Your task to perform on an android device: Search for jbl charge 4 on walmart, select the first entry, and add it to the cart. Image 0: 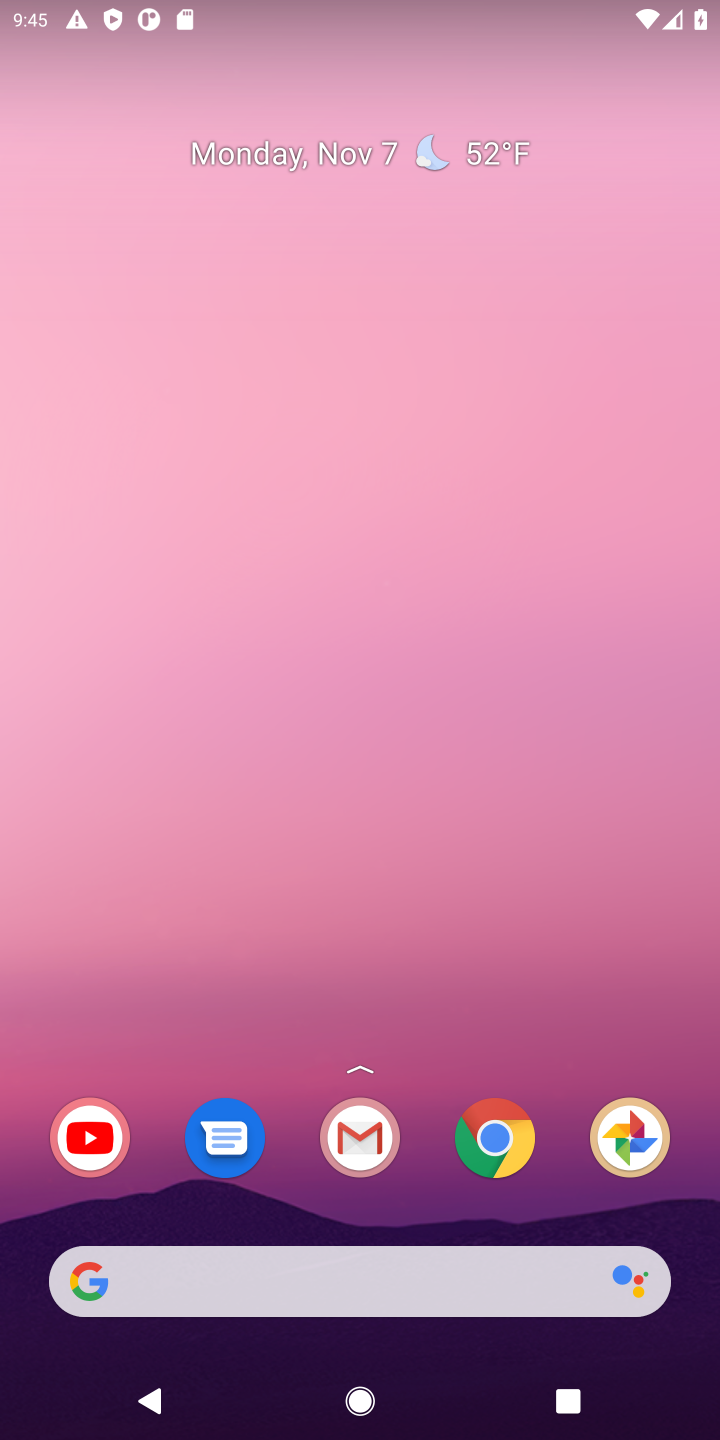
Step 0: click (504, 1128)
Your task to perform on an android device: Search for jbl charge 4 on walmart, select the first entry, and add it to the cart. Image 1: 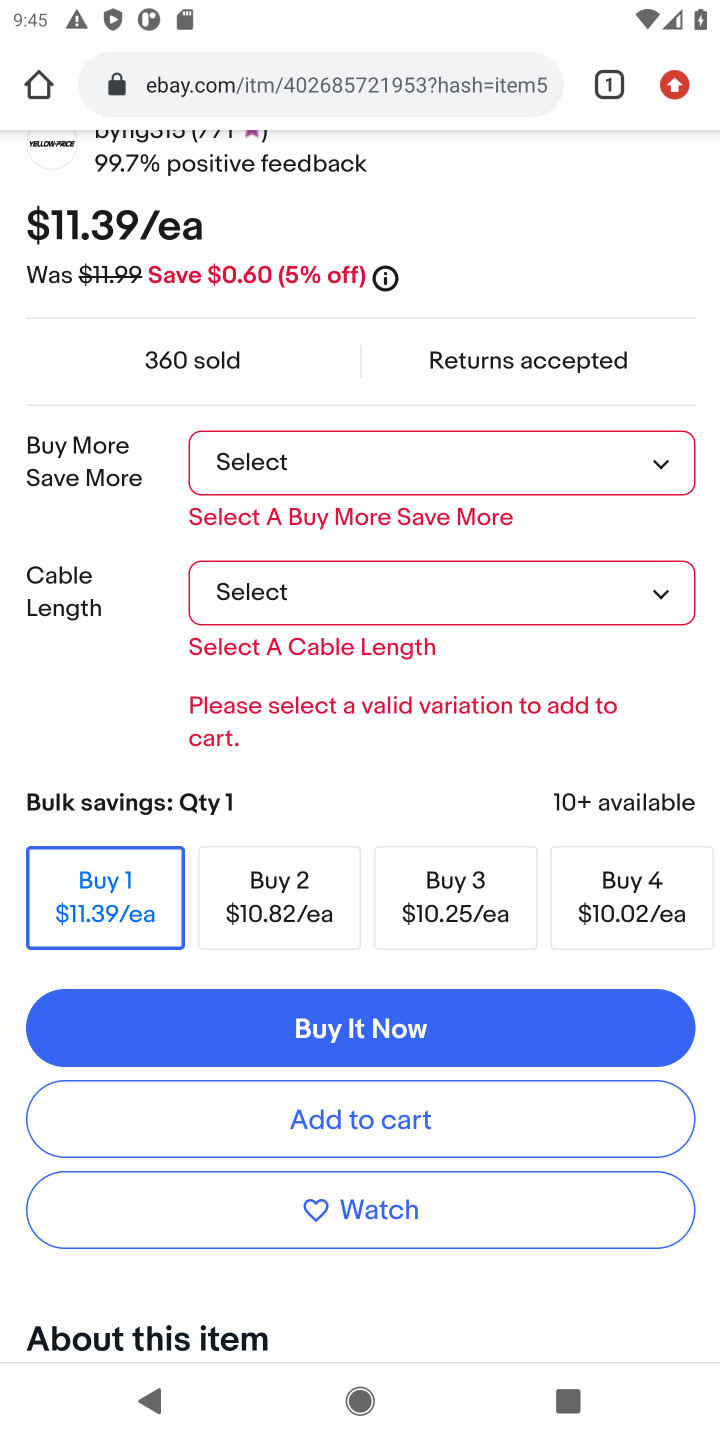
Step 1: click (209, 84)
Your task to perform on an android device: Search for jbl charge 4 on walmart, select the first entry, and add it to the cart. Image 2: 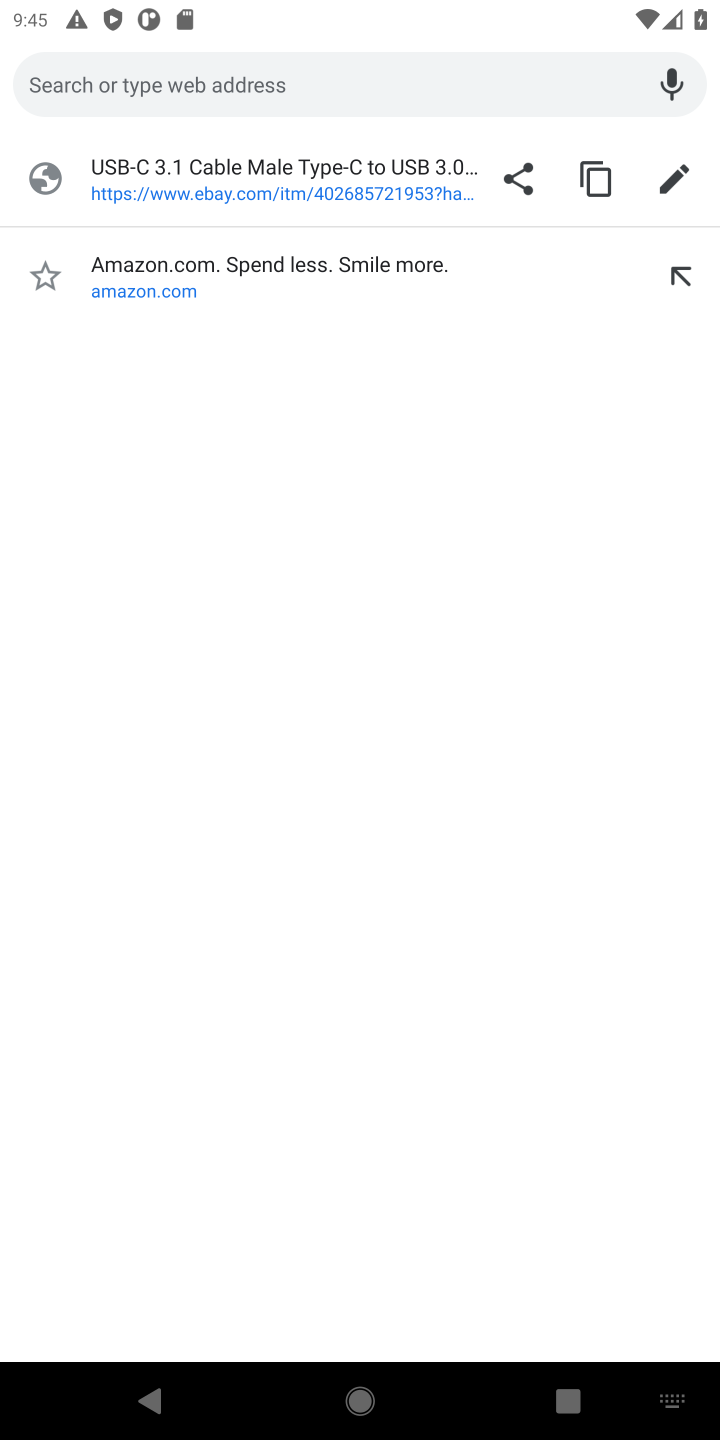
Step 2: type "walmart"
Your task to perform on an android device: Search for jbl charge 4 on walmart, select the first entry, and add it to the cart. Image 3: 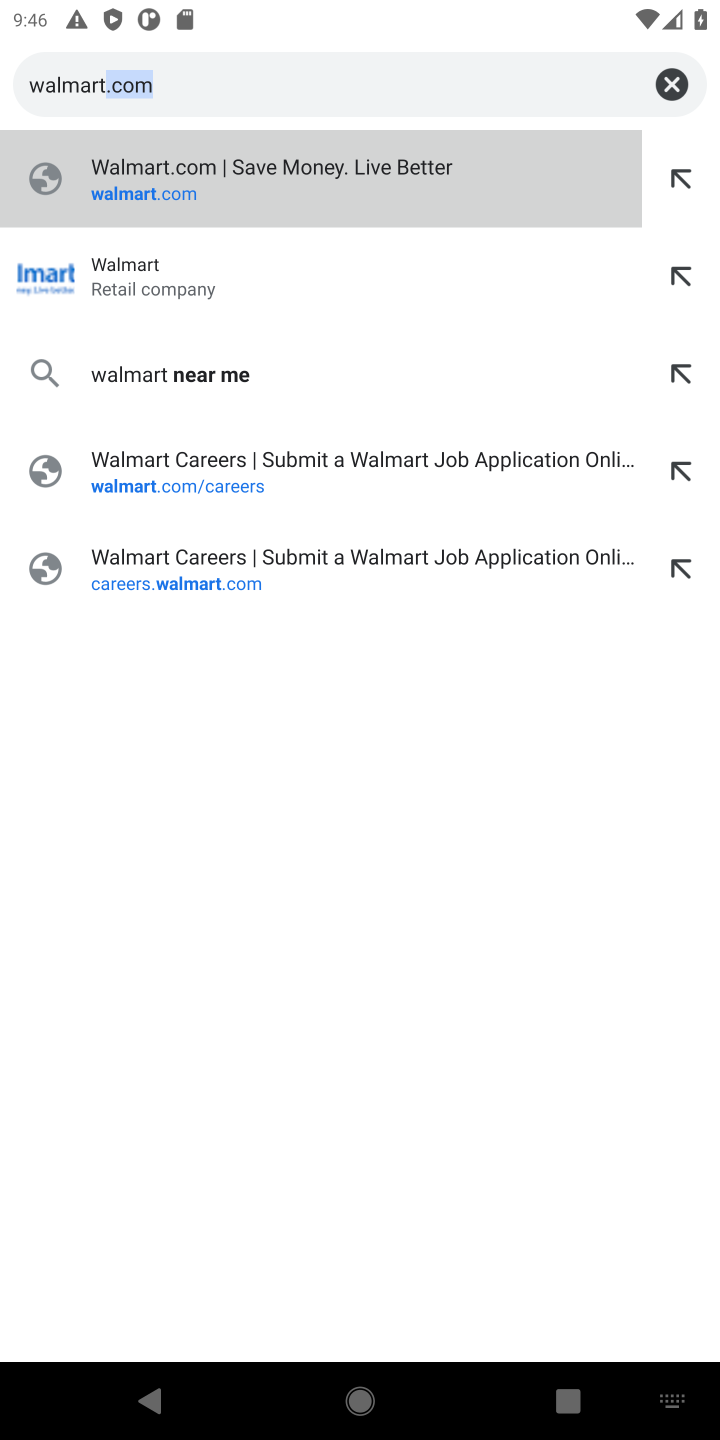
Step 3: type ""
Your task to perform on an android device: Search for jbl charge 4 on walmart, select the first entry, and add it to the cart. Image 4: 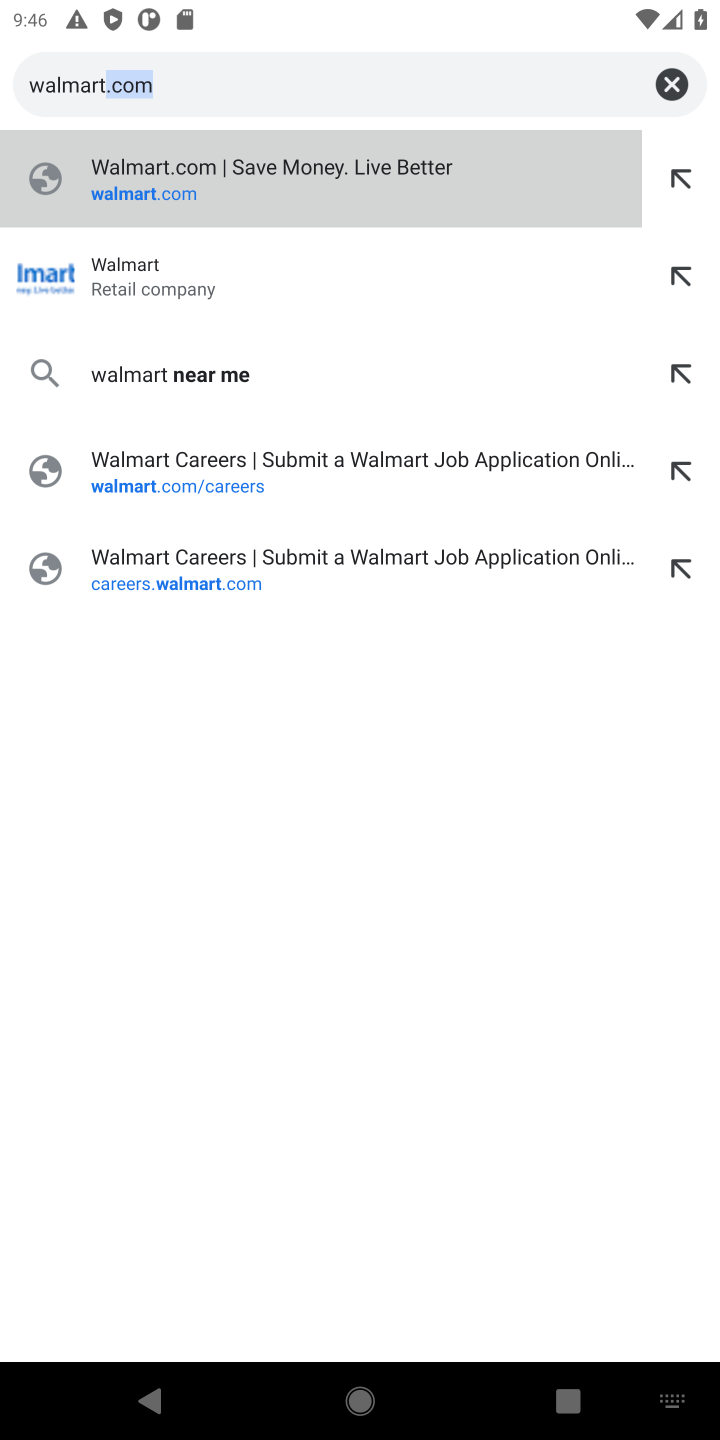
Step 4: click (113, 288)
Your task to perform on an android device: Search for jbl charge 4 on walmart, select the first entry, and add it to the cart. Image 5: 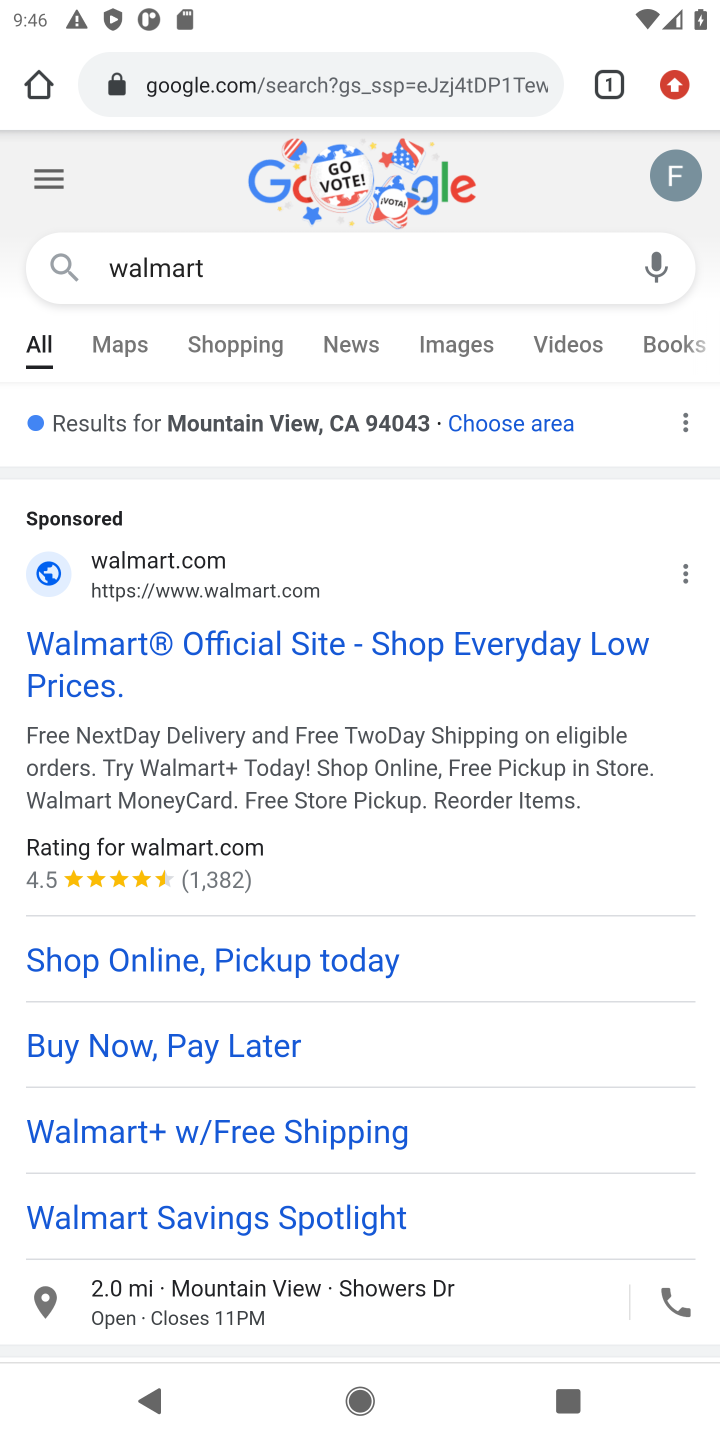
Step 5: drag from (316, 1047) to (326, 494)
Your task to perform on an android device: Search for jbl charge 4 on walmart, select the first entry, and add it to the cart. Image 6: 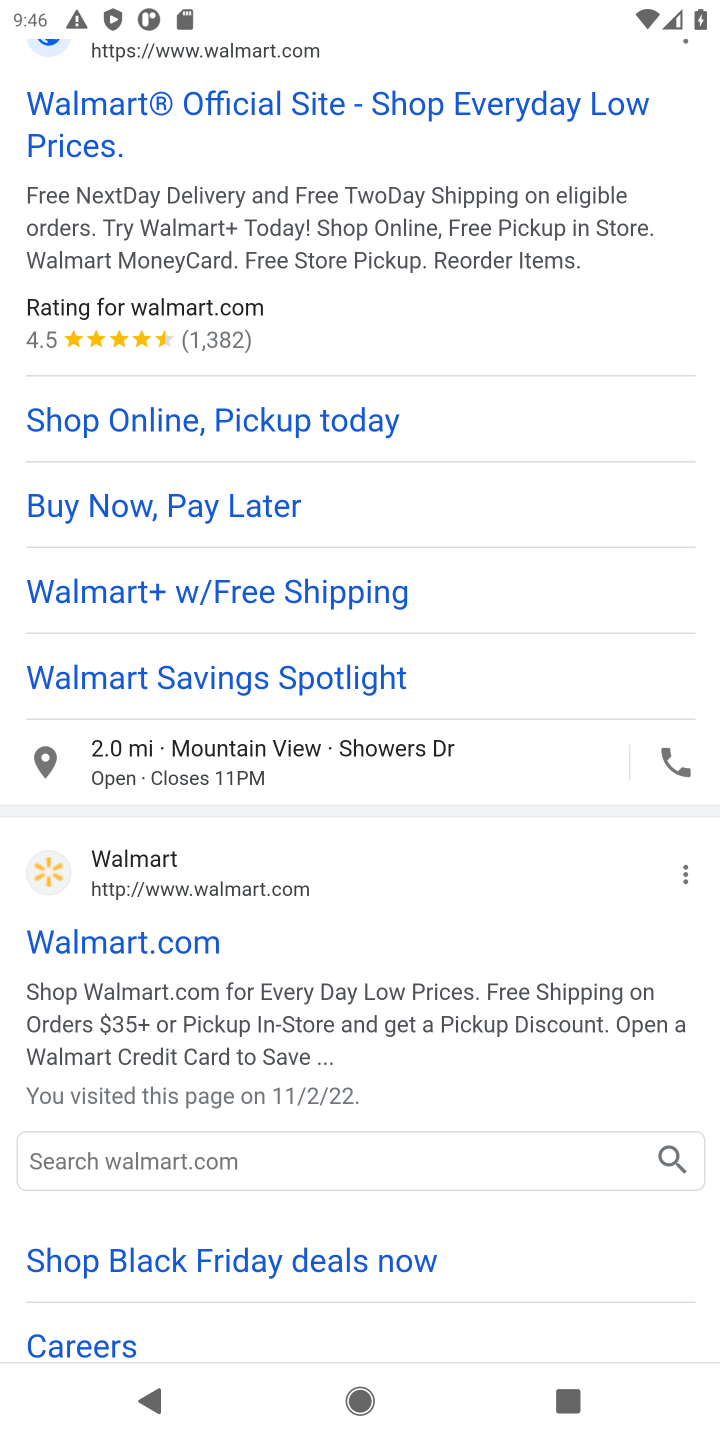
Step 6: drag from (327, 1143) to (336, 675)
Your task to perform on an android device: Search for jbl charge 4 on walmart, select the first entry, and add it to the cart. Image 7: 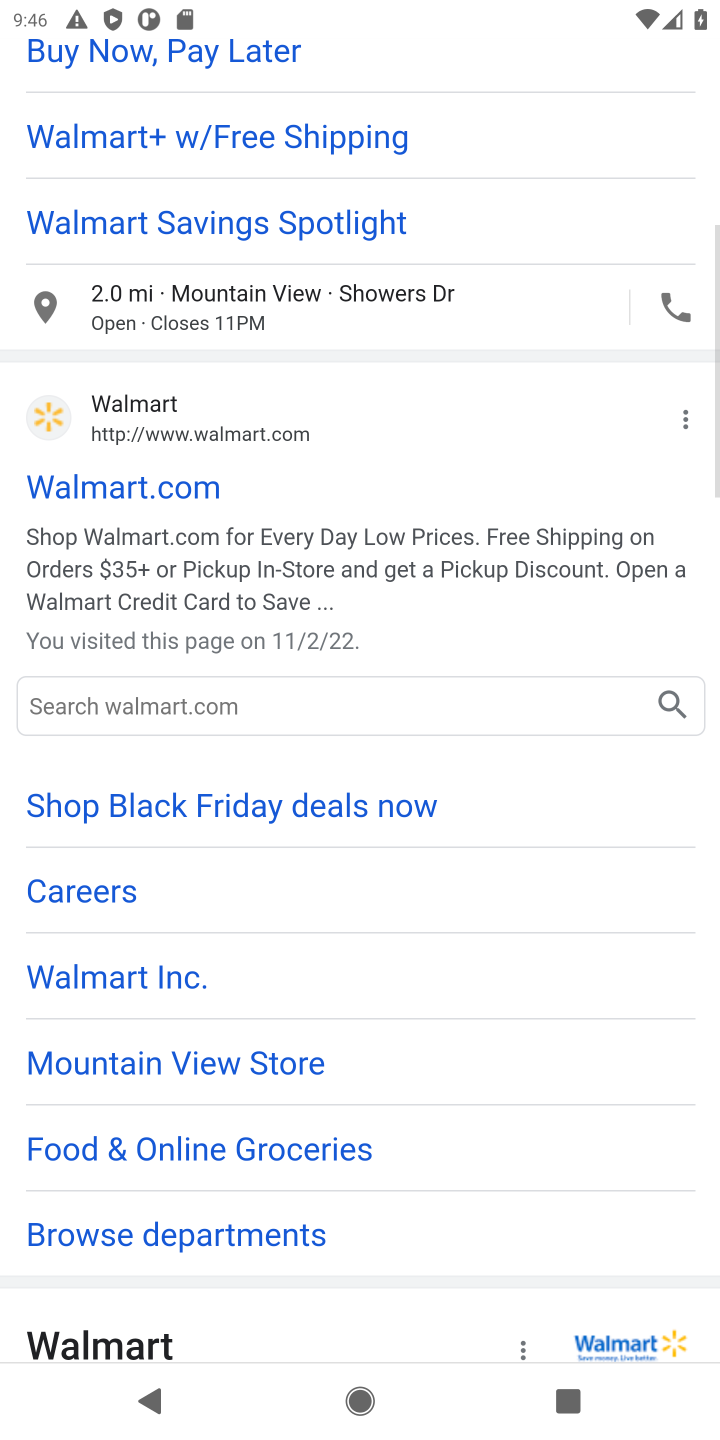
Step 7: click (123, 883)
Your task to perform on an android device: Search for jbl charge 4 on walmart, select the first entry, and add it to the cart. Image 8: 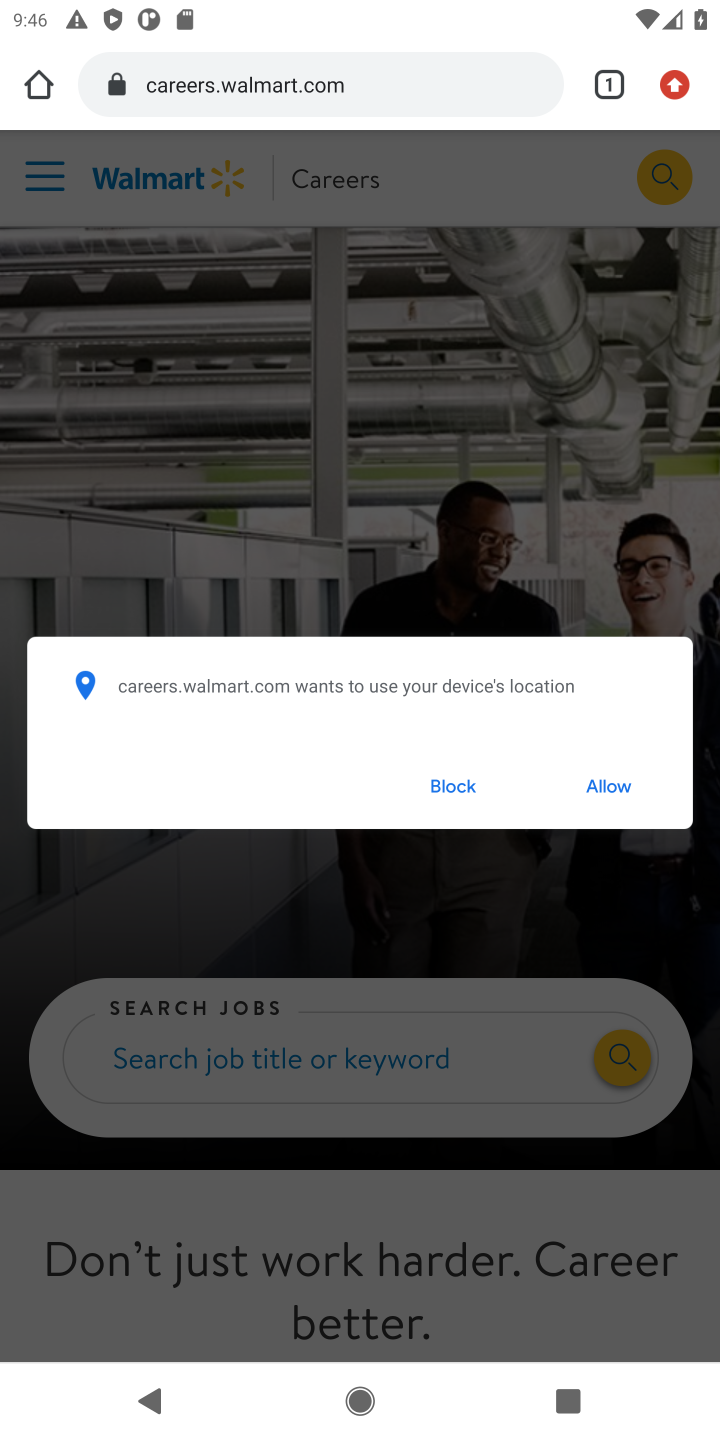
Step 8: click (672, 170)
Your task to perform on an android device: Search for jbl charge 4 on walmart, select the first entry, and add it to the cart. Image 9: 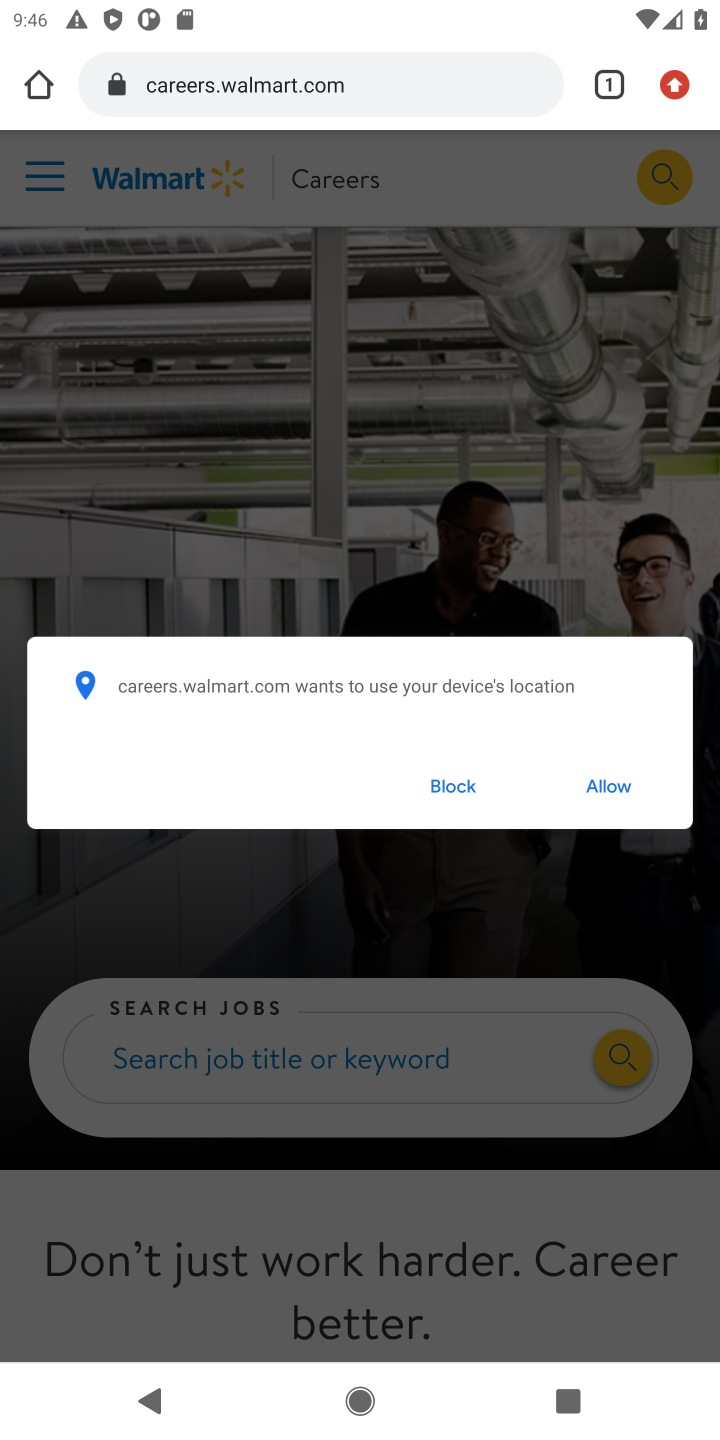
Step 9: click (605, 785)
Your task to perform on an android device: Search for jbl charge 4 on walmart, select the first entry, and add it to the cart. Image 10: 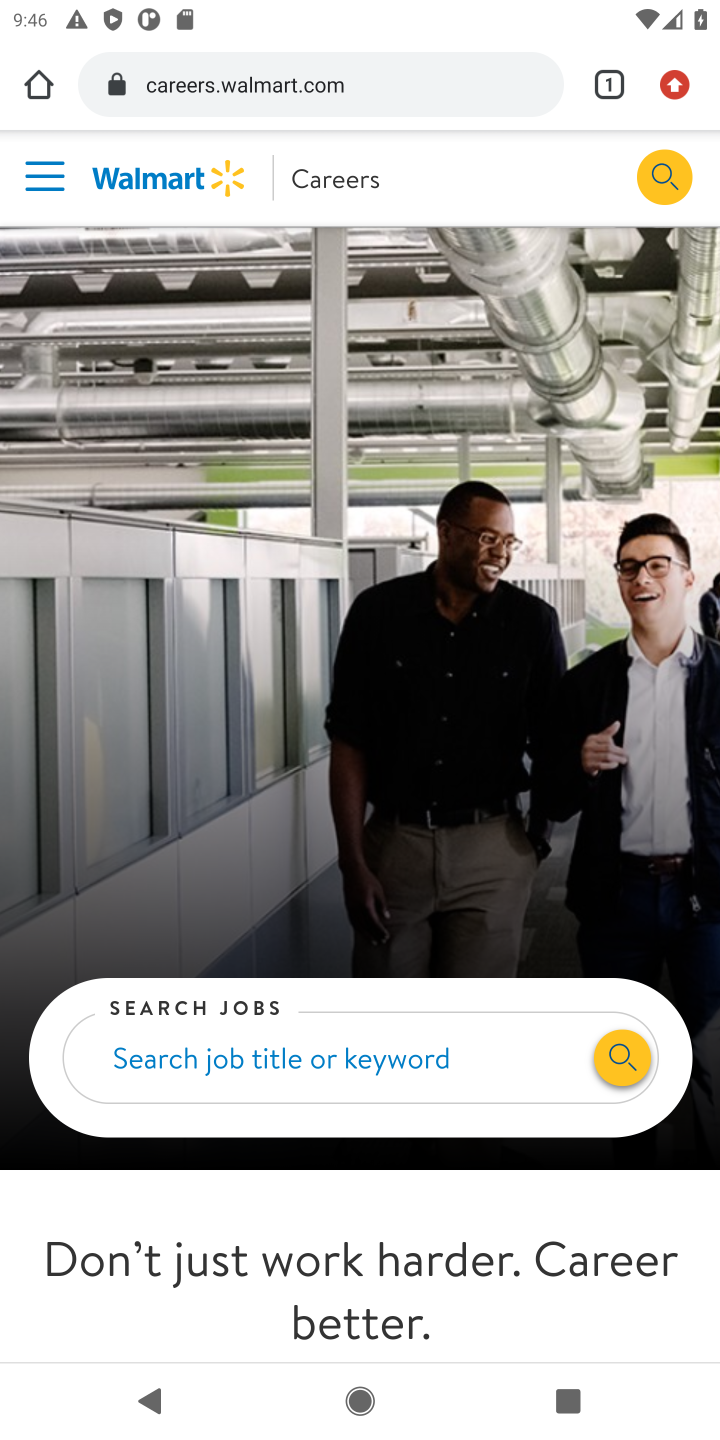
Step 10: click (653, 187)
Your task to perform on an android device: Search for jbl charge 4 on walmart, select the first entry, and add it to the cart. Image 11: 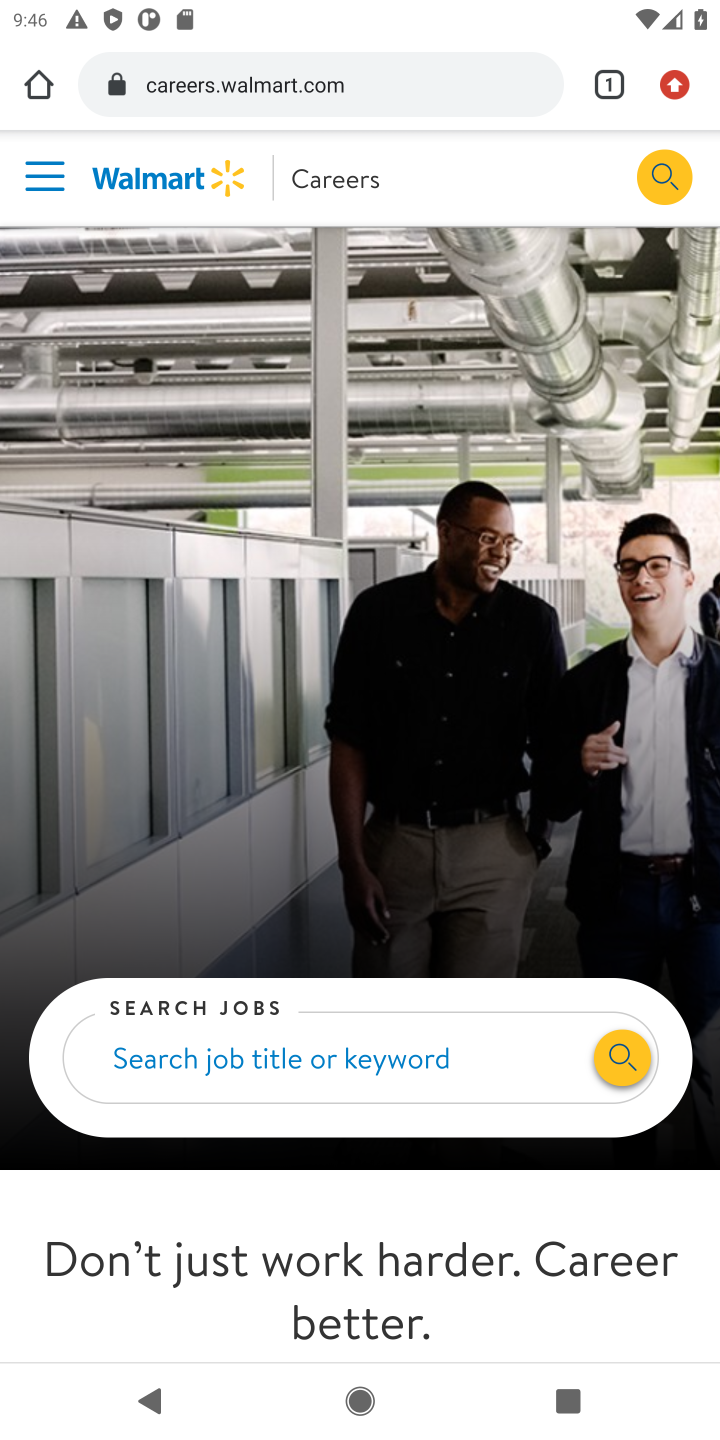
Step 11: click (655, 190)
Your task to perform on an android device: Search for jbl charge 4 on walmart, select the first entry, and add it to the cart. Image 12: 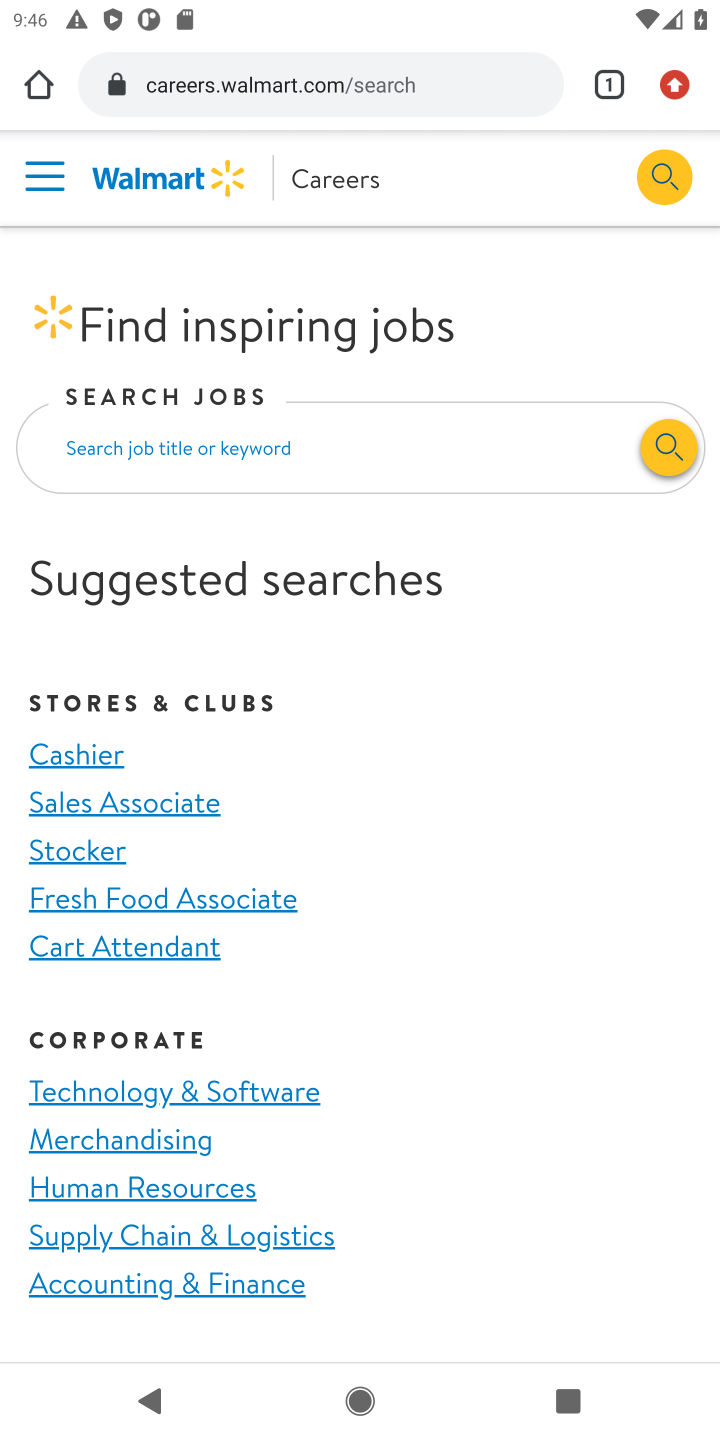
Step 12: click (225, 444)
Your task to perform on an android device: Search for jbl charge 4 on walmart, select the first entry, and add it to the cart. Image 13: 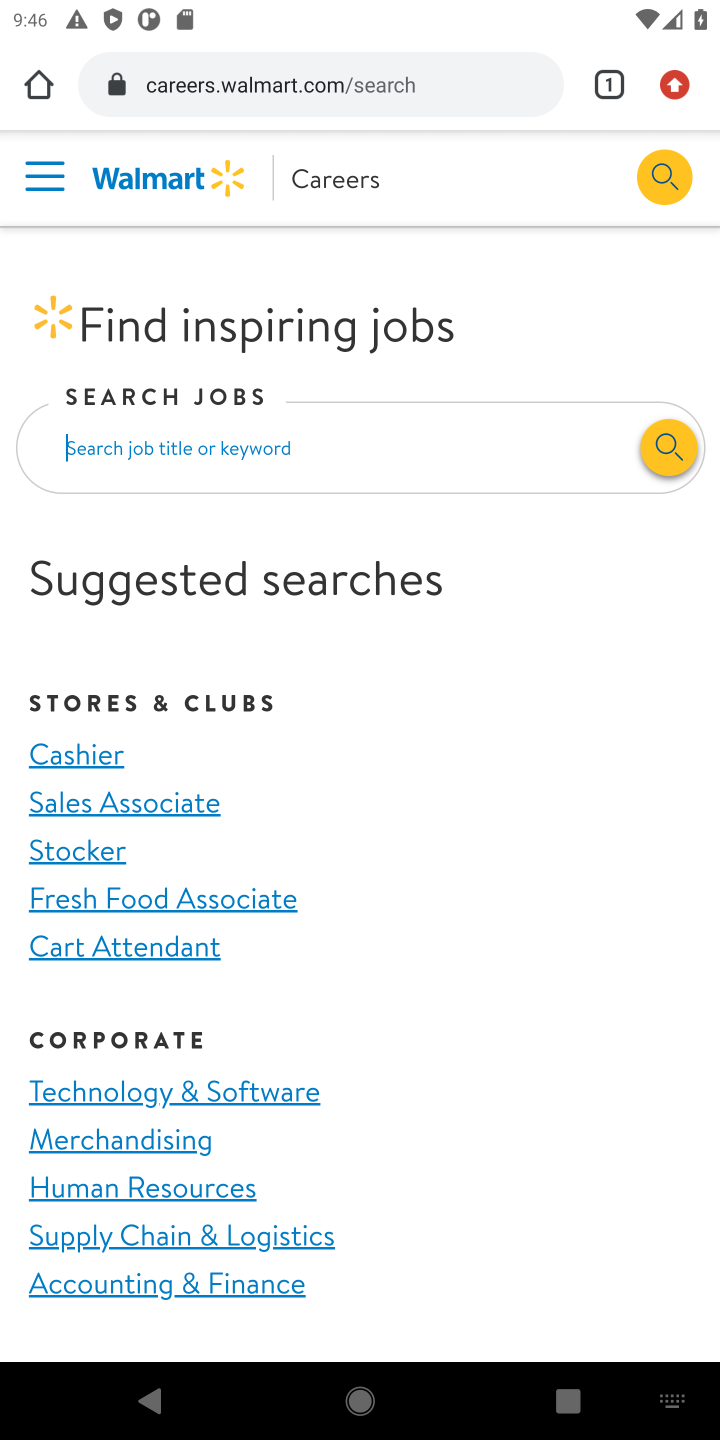
Step 13: press back button
Your task to perform on an android device: Search for jbl charge 4 on walmart, select the first entry, and add it to the cart. Image 14: 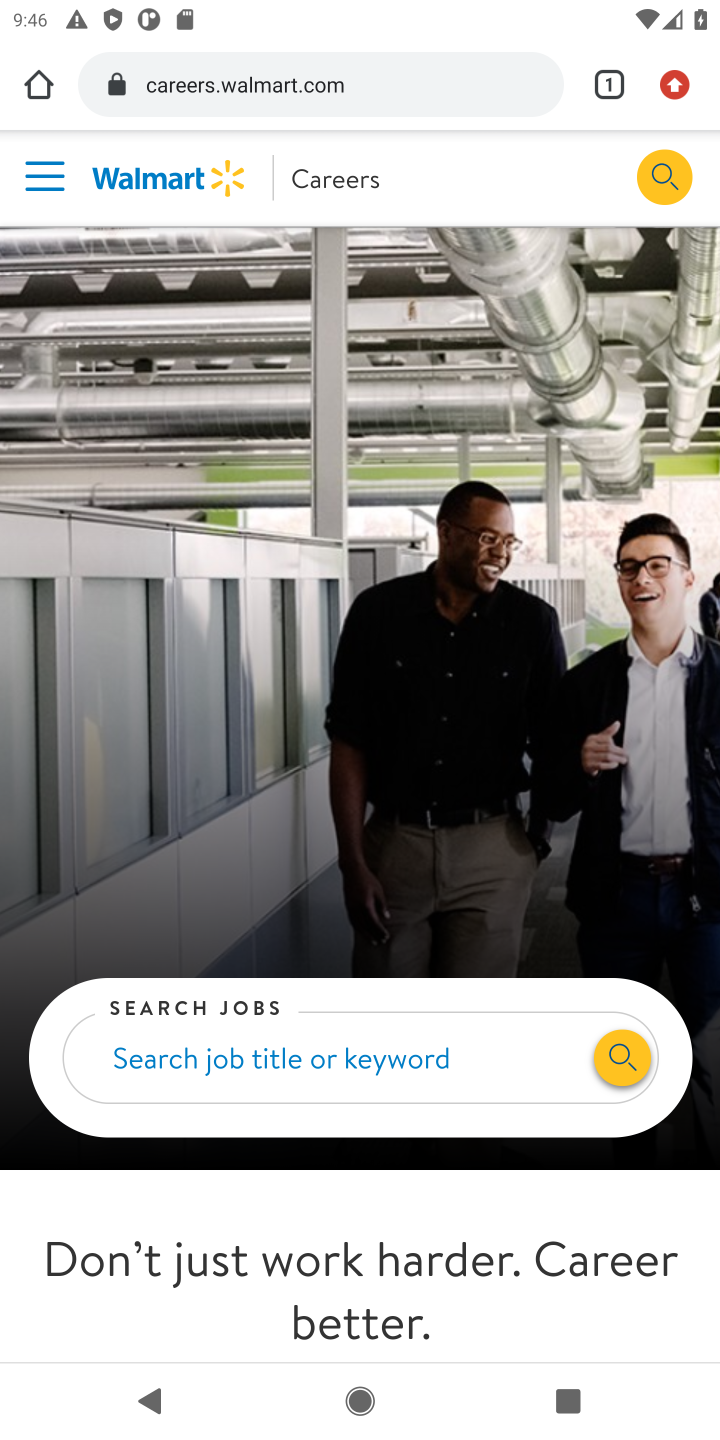
Step 14: click (268, 78)
Your task to perform on an android device: Search for jbl charge 4 on walmart, select the first entry, and add it to the cart. Image 15: 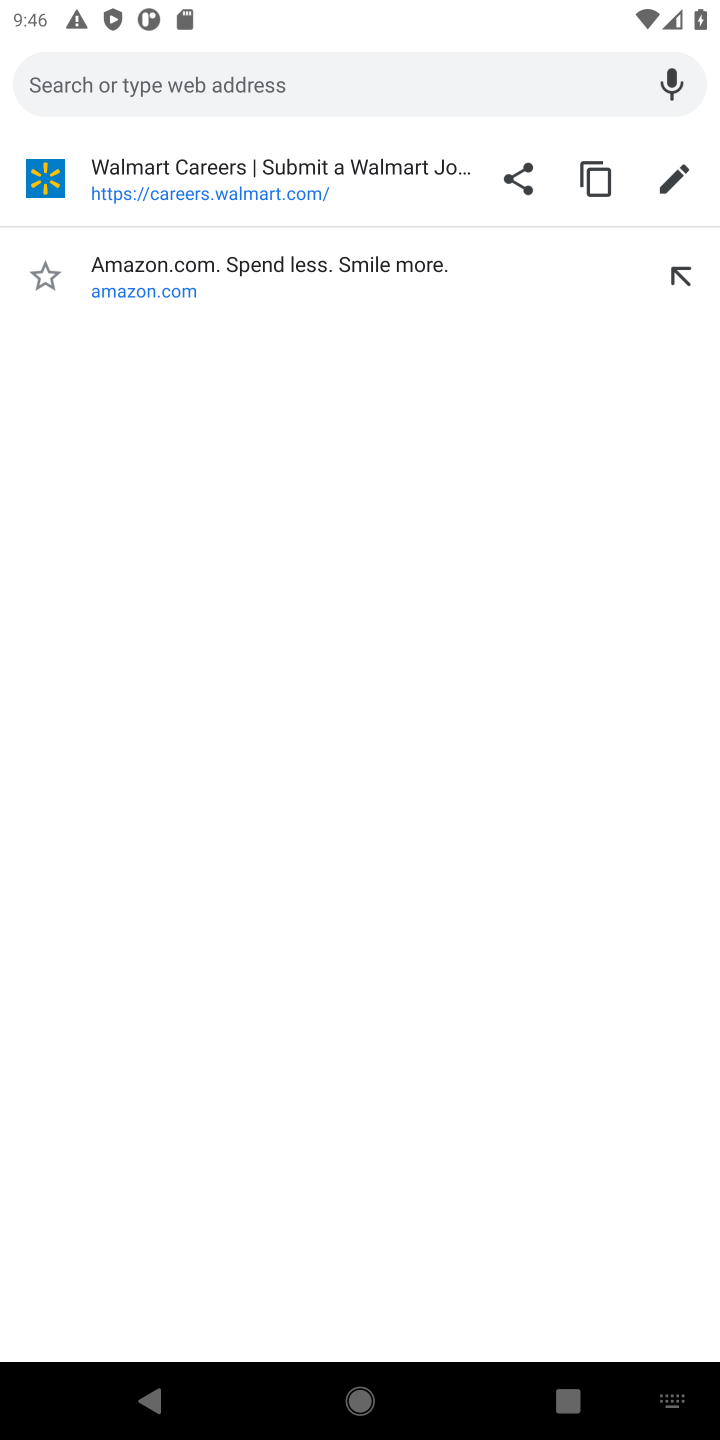
Step 15: type "walart"
Your task to perform on an android device: Search for jbl charge 4 on walmart, select the first entry, and add it to the cart. Image 16: 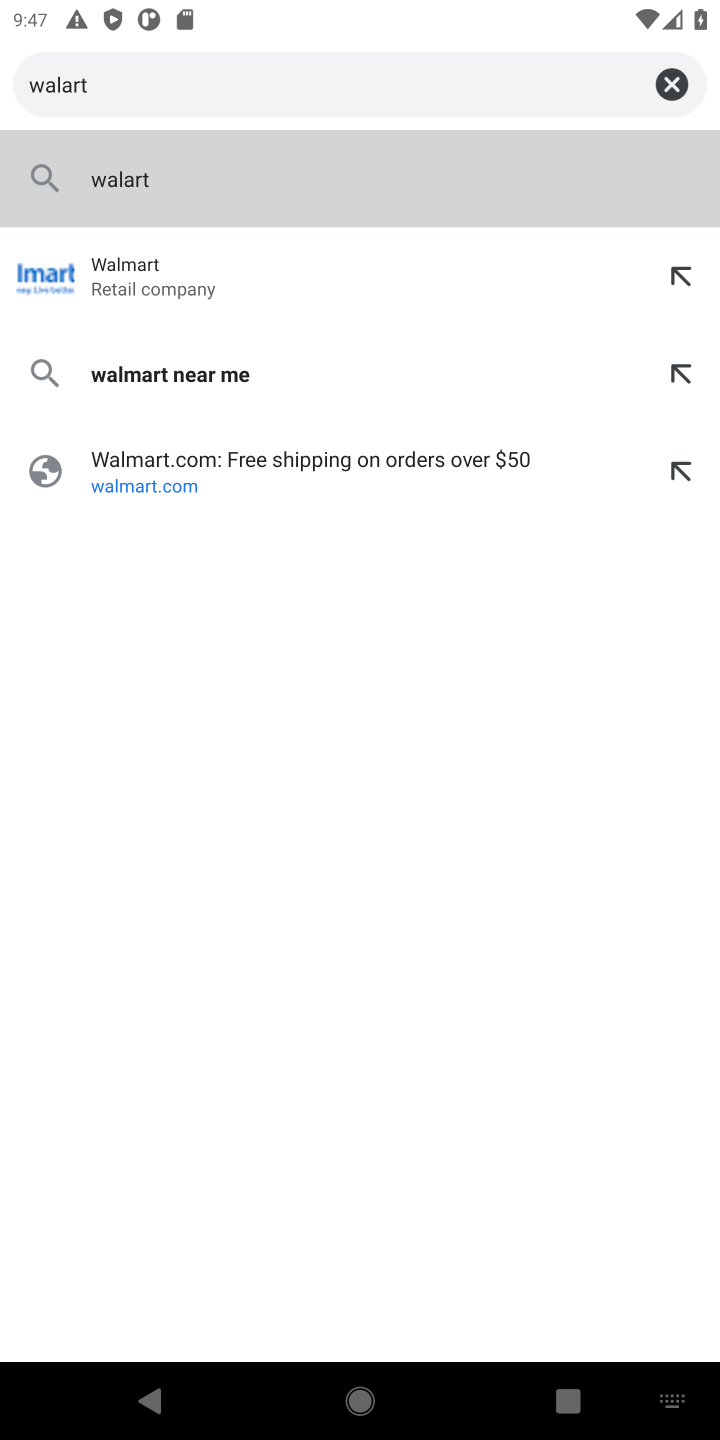
Step 16: click (116, 286)
Your task to perform on an android device: Search for jbl charge 4 on walmart, select the first entry, and add it to the cart. Image 17: 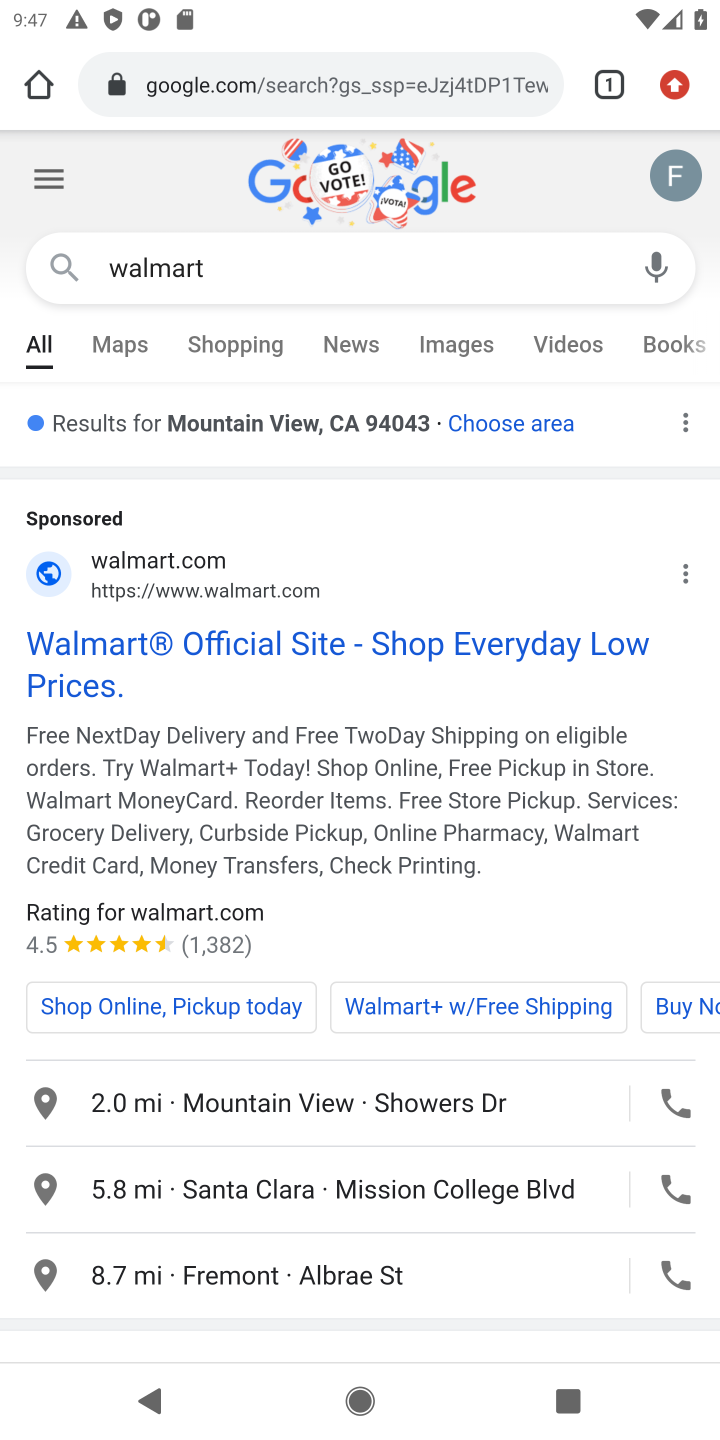
Step 17: drag from (180, 790) to (172, 293)
Your task to perform on an android device: Search for jbl charge 4 on walmart, select the first entry, and add it to the cart. Image 18: 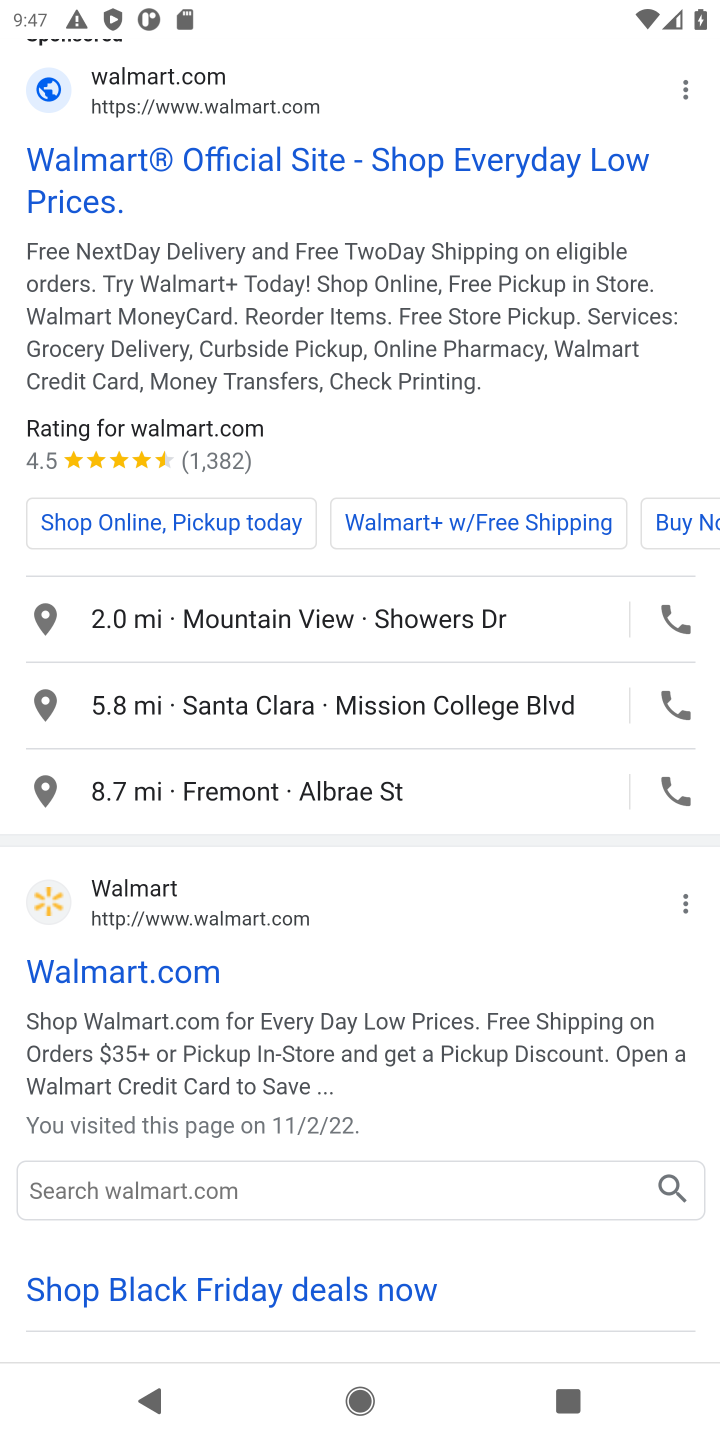
Step 18: click (122, 967)
Your task to perform on an android device: Search for jbl charge 4 on walmart, select the first entry, and add it to the cart. Image 19: 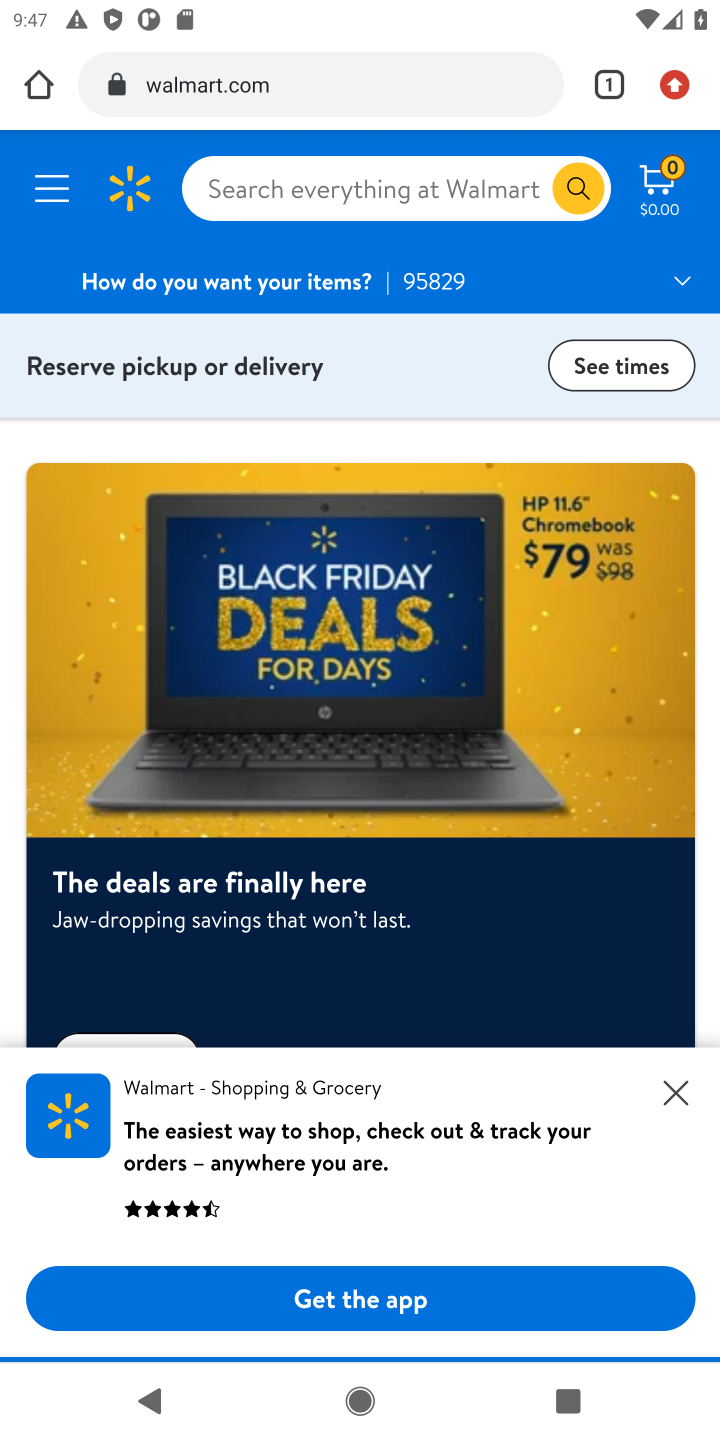
Step 19: click (358, 183)
Your task to perform on an android device: Search for jbl charge 4 on walmart, select the first entry, and add it to the cart. Image 20: 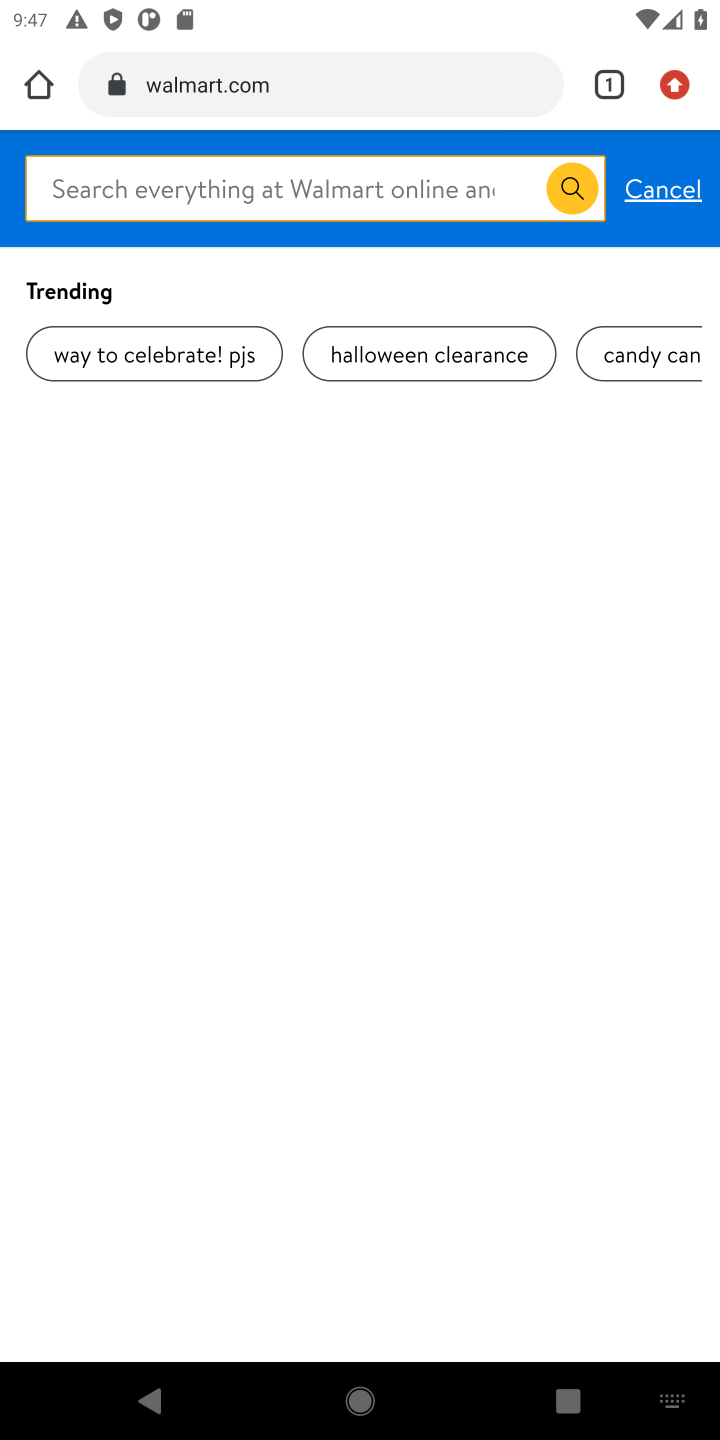
Step 20: type "jbl charge 4 "
Your task to perform on an android device: Search for jbl charge 4 on walmart, select the first entry, and add it to the cart. Image 21: 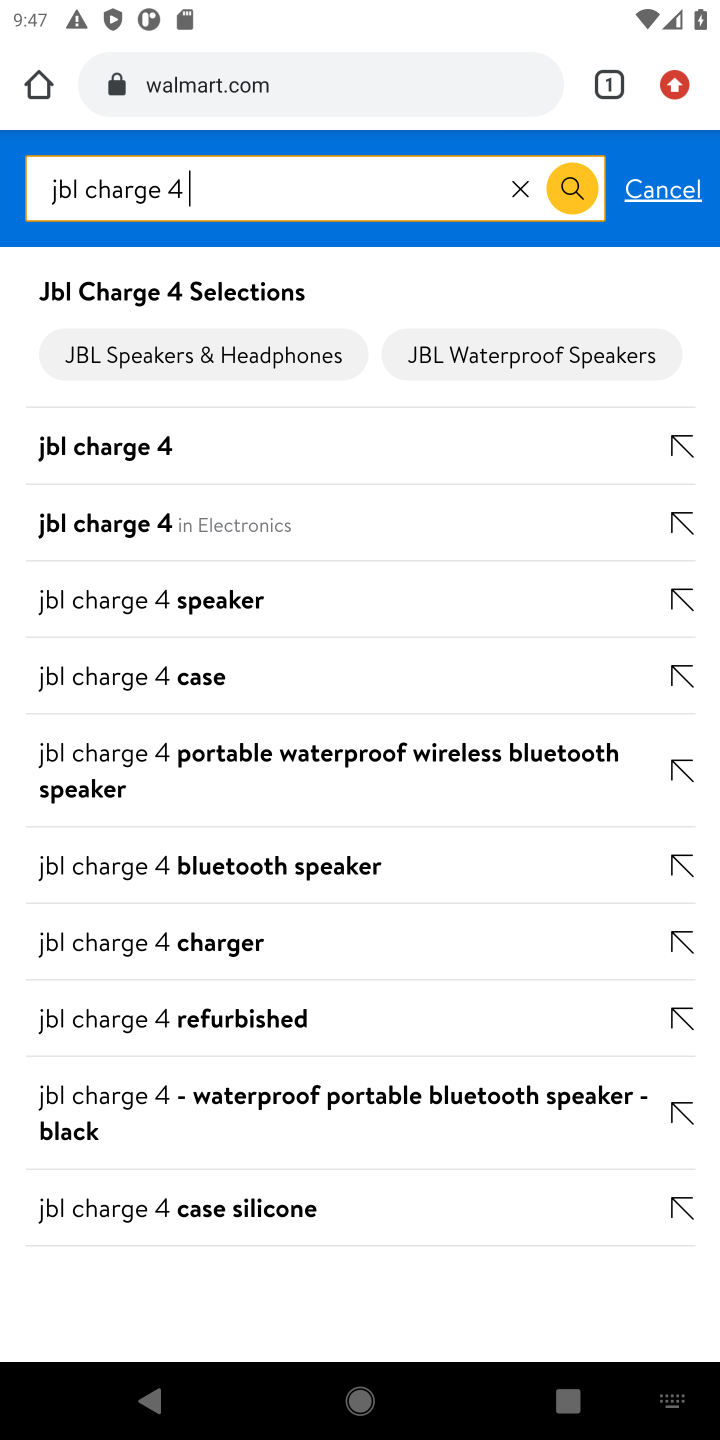
Step 21: click (125, 460)
Your task to perform on an android device: Search for jbl charge 4 on walmart, select the first entry, and add it to the cart. Image 22: 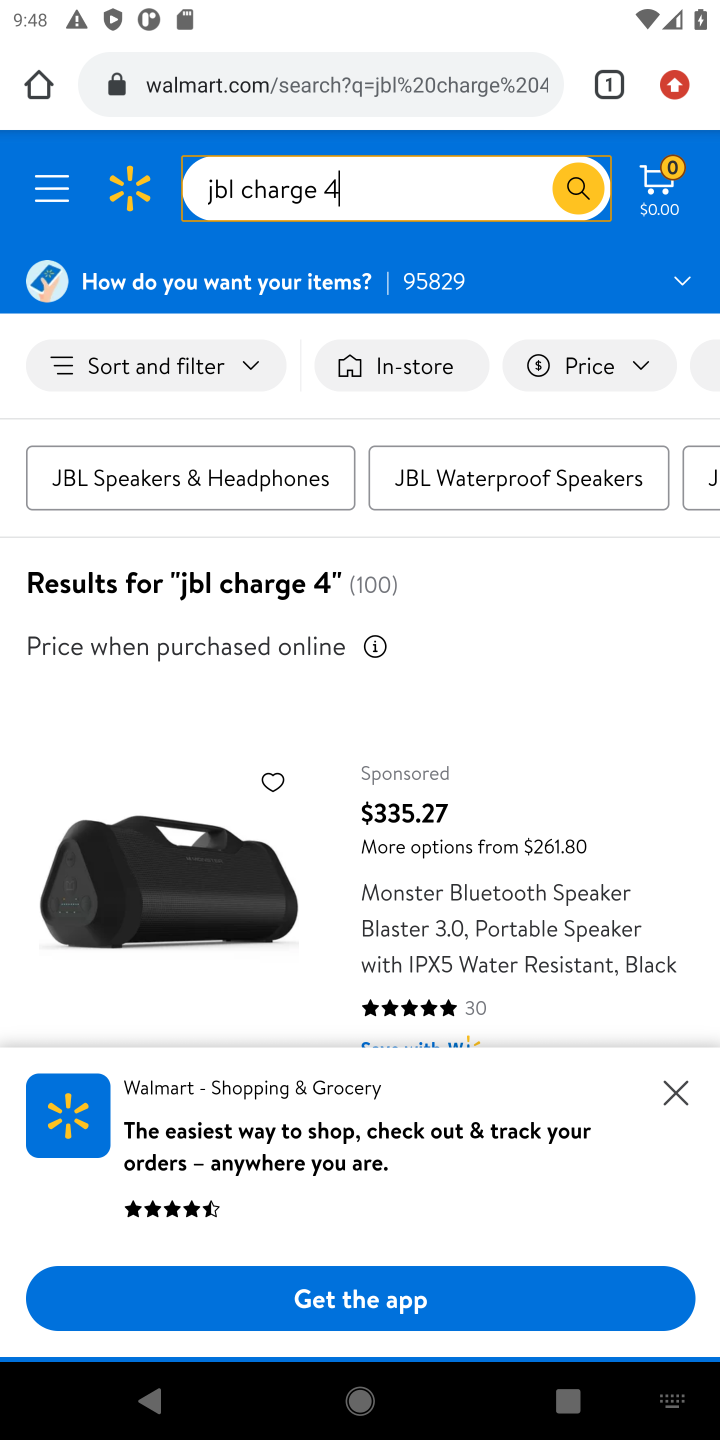
Step 22: click (676, 1091)
Your task to perform on an android device: Search for jbl charge 4 on walmart, select the first entry, and add it to the cart. Image 23: 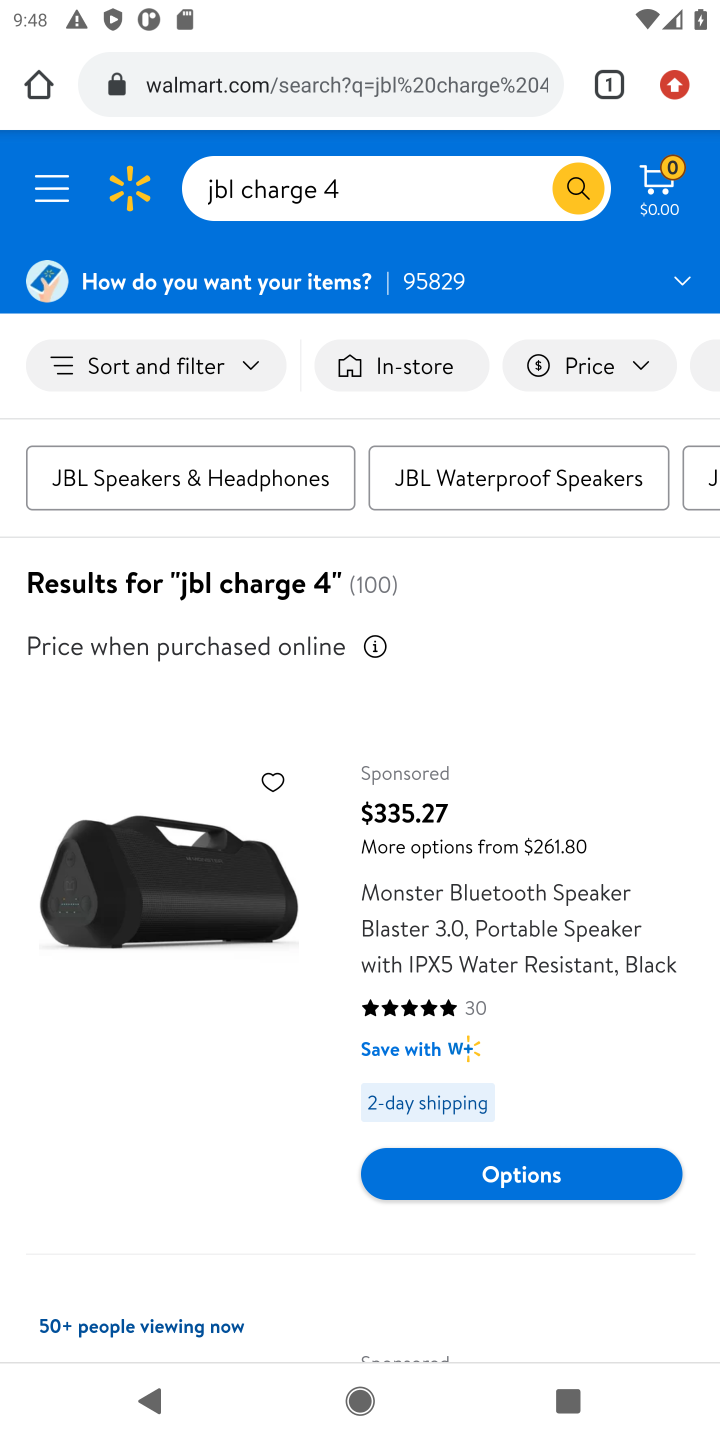
Step 23: click (447, 858)
Your task to perform on an android device: Search for jbl charge 4 on walmart, select the first entry, and add it to the cart. Image 24: 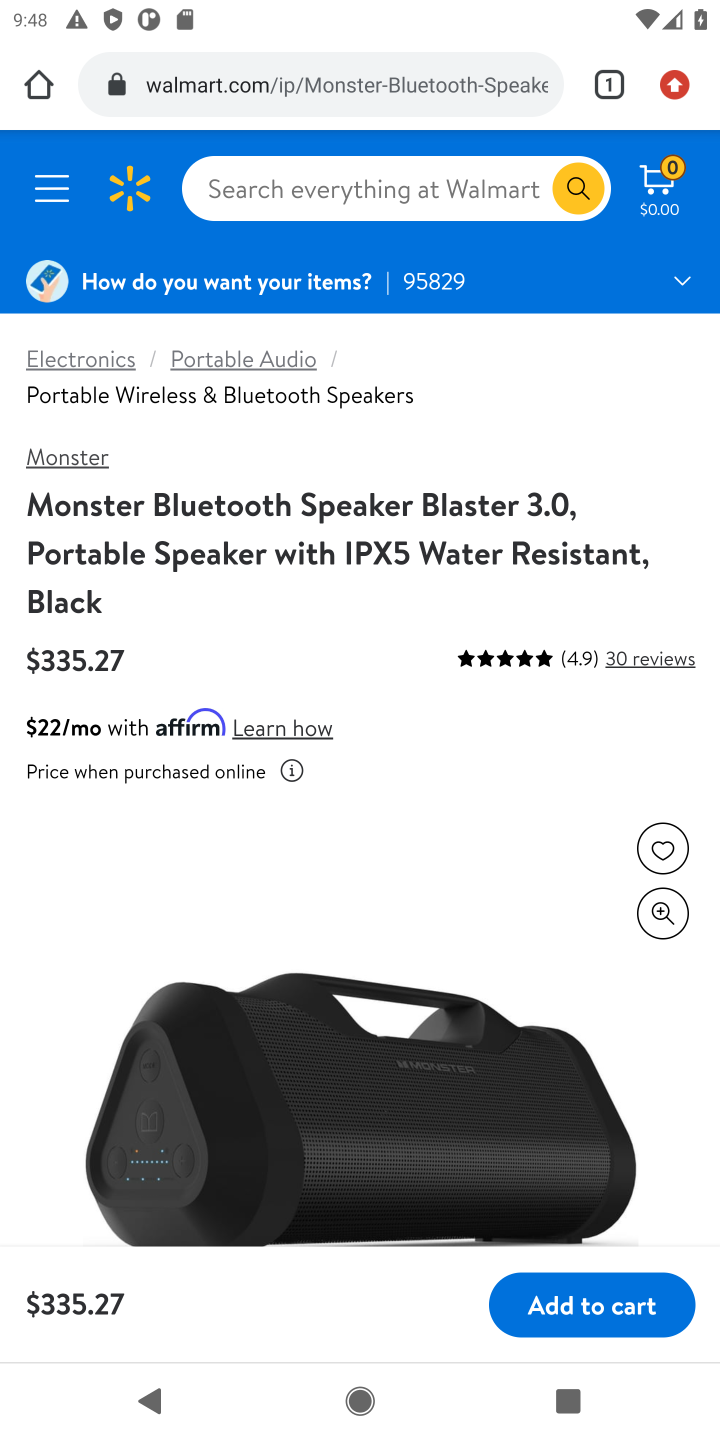
Step 24: click (596, 1307)
Your task to perform on an android device: Search for jbl charge 4 on walmart, select the first entry, and add it to the cart. Image 25: 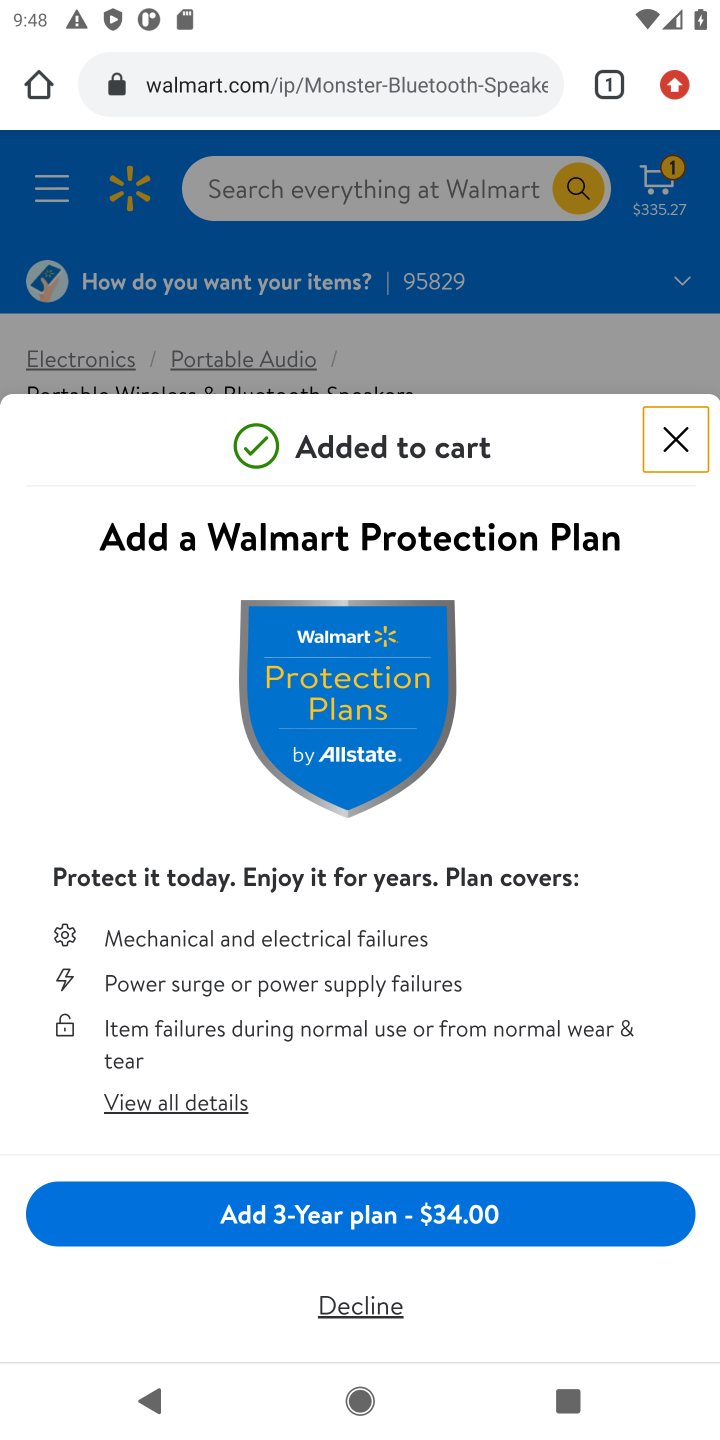
Step 25: click (669, 439)
Your task to perform on an android device: Search for jbl charge 4 on walmart, select the first entry, and add it to the cart. Image 26: 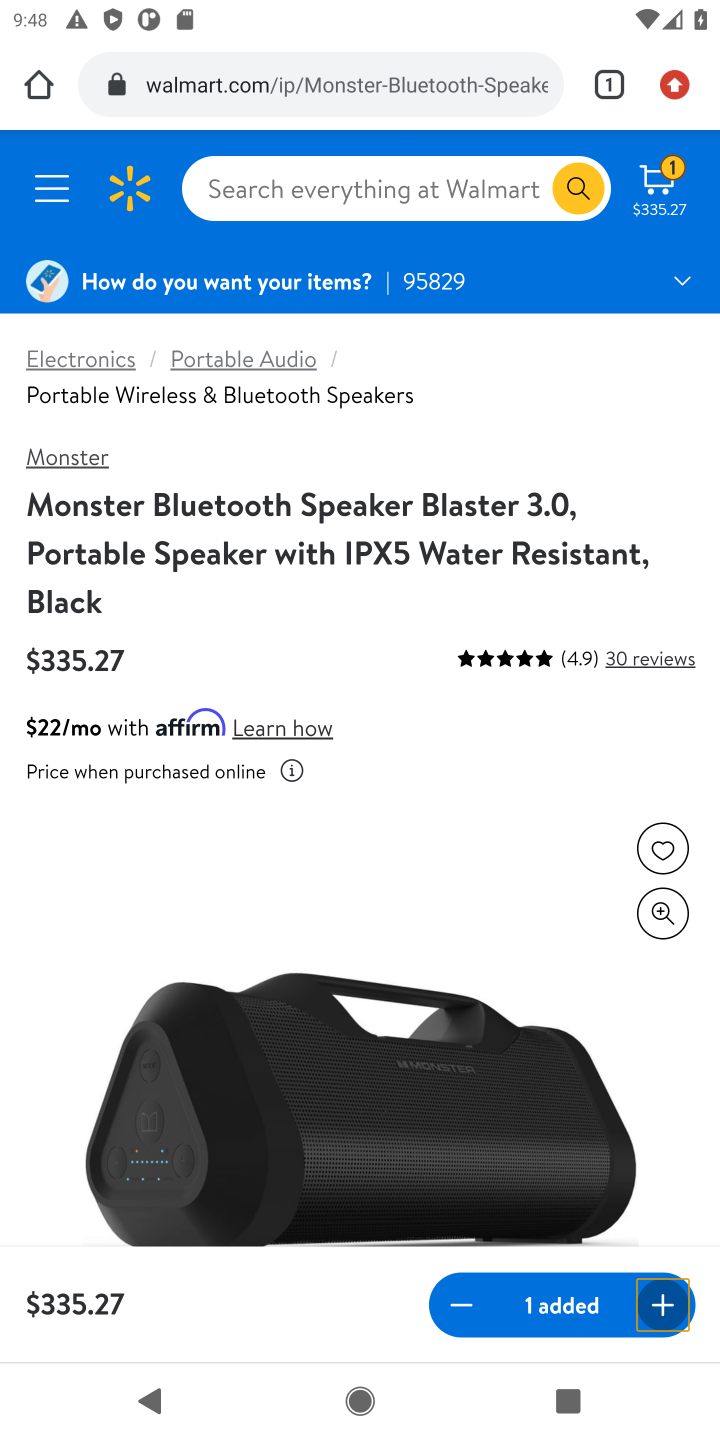
Step 26: drag from (403, 1077) to (514, 590)
Your task to perform on an android device: Search for jbl charge 4 on walmart, select the first entry, and add it to the cart. Image 27: 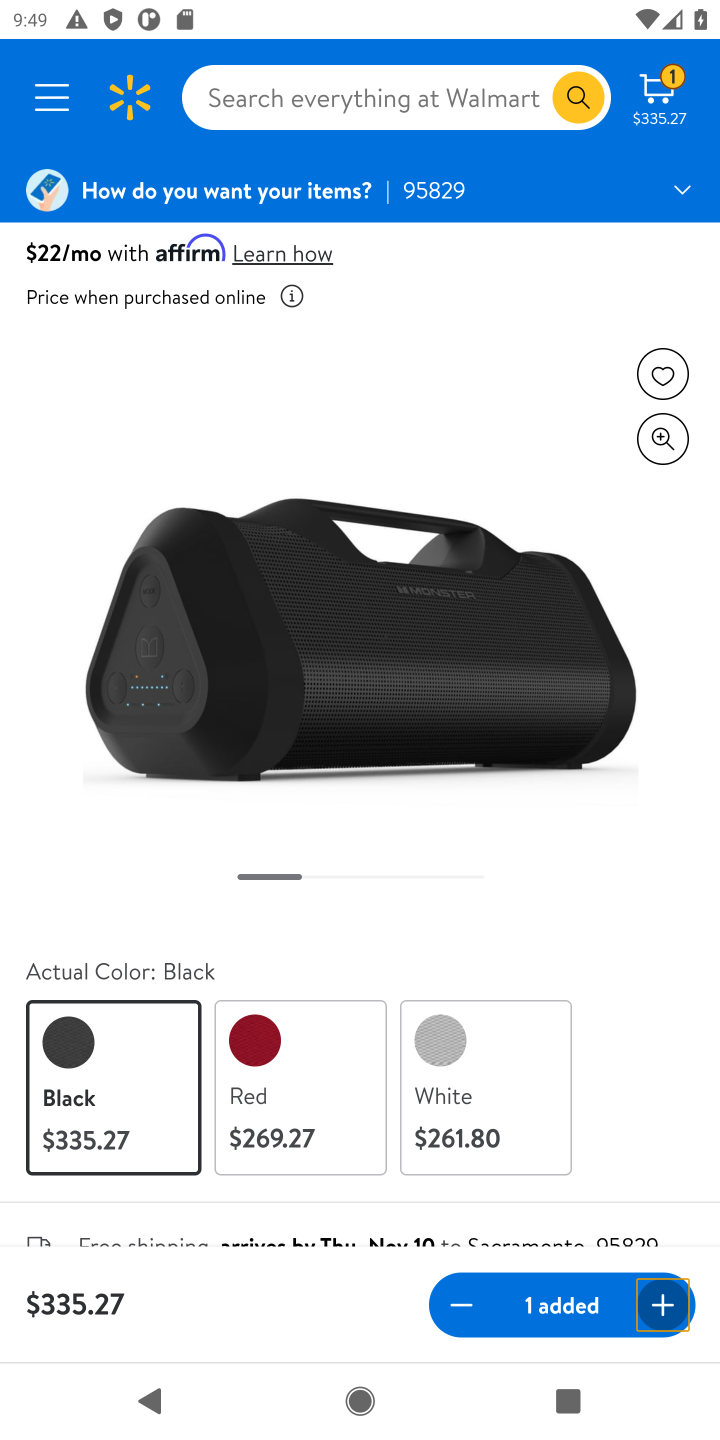
Step 27: click (660, 79)
Your task to perform on an android device: Search for jbl charge 4 on walmart, select the first entry, and add it to the cart. Image 28: 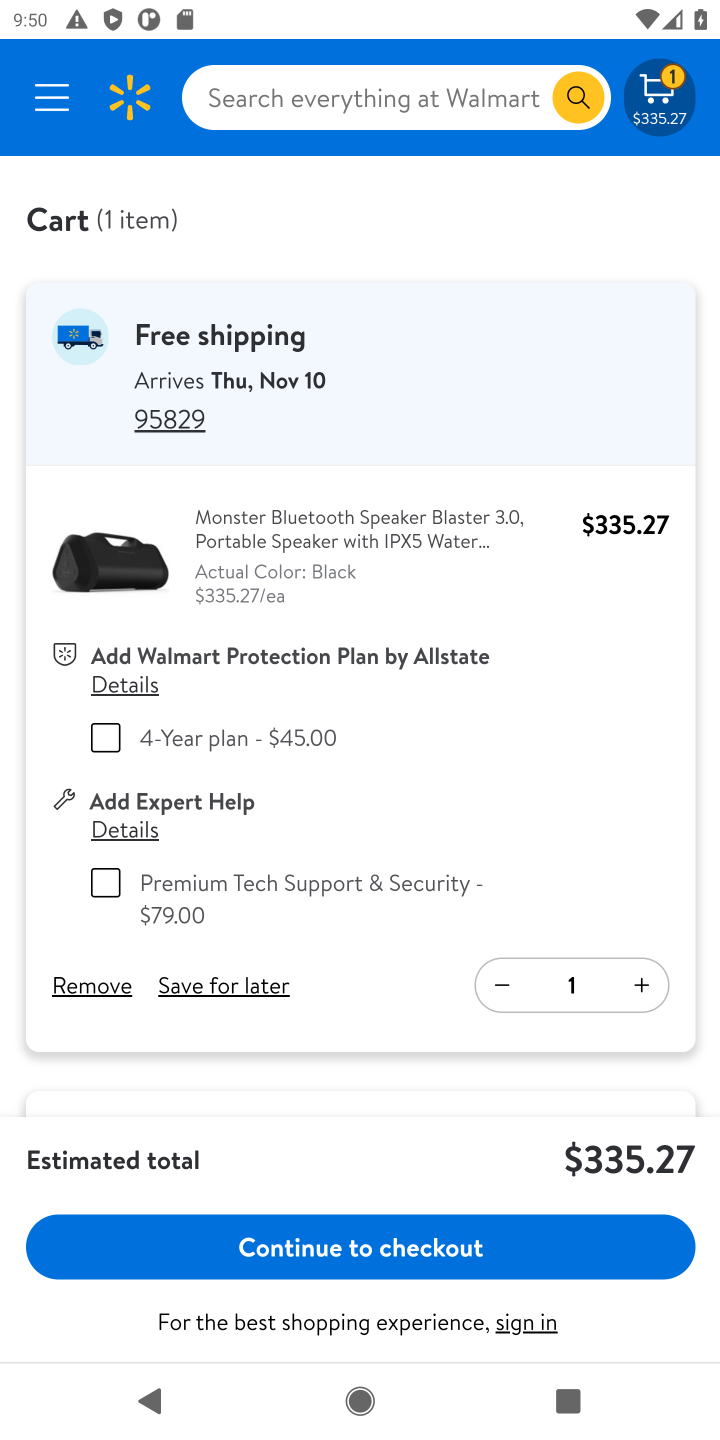
Step 28: task complete